Your task to perform on an android device: Is it going to rain tomorrow? Image 0: 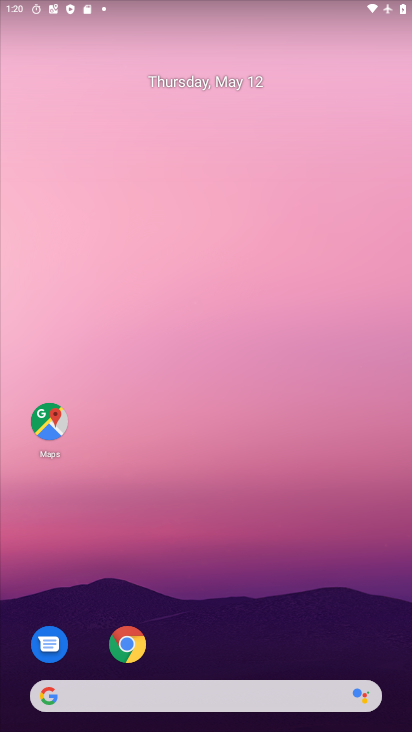
Step 0: drag from (253, 597) to (195, 73)
Your task to perform on an android device: Is it going to rain tomorrow? Image 1: 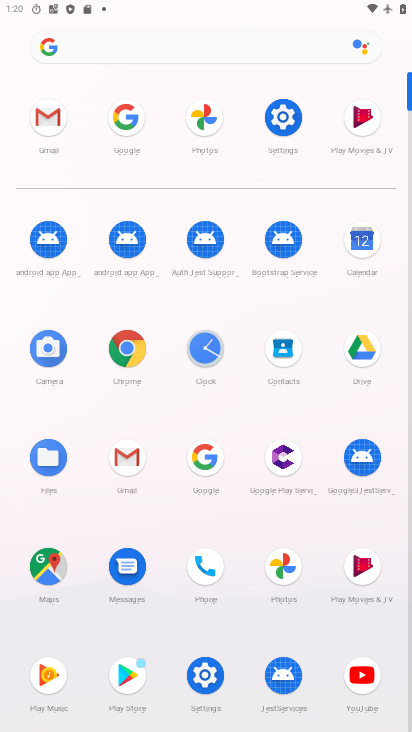
Step 1: click (204, 448)
Your task to perform on an android device: Is it going to rain tomorrow? Image 2: 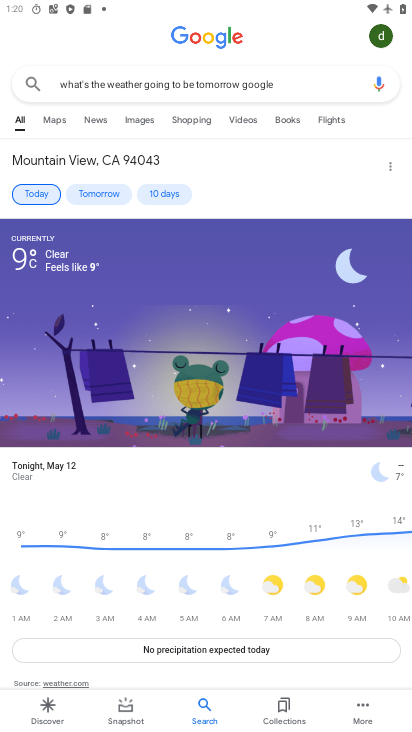
Step 2: click (293, 75)
Your task to perform on an android device: Is it going to rain tomorrow? Image 3: 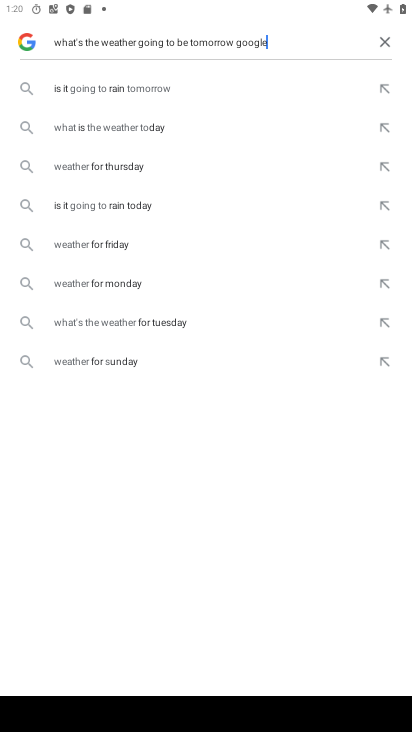
Step 3: click (147, 91)
Your task to perform on an android device: Is it going to rain tomorrow? Image 4: 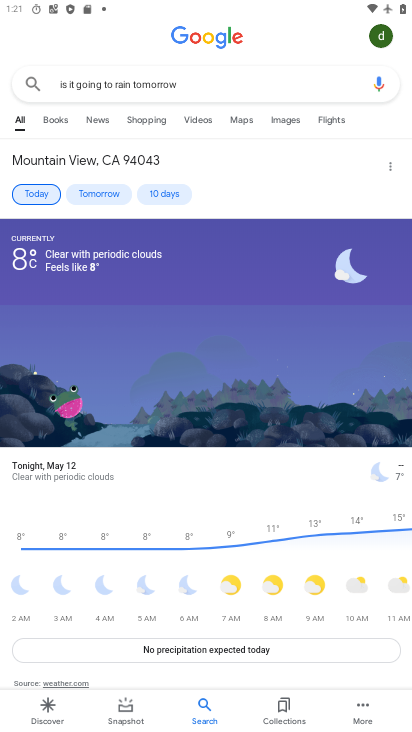
Step 4: click (105, 187)
Your task to perform on an android device: Is it going to rain tomorrow? Image 5: 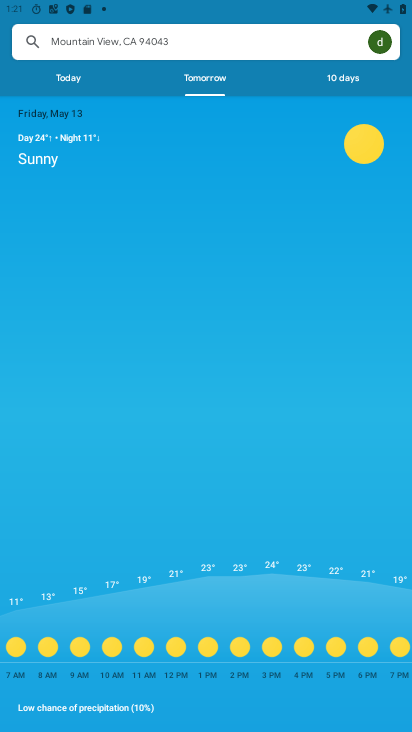
Step 5: task complete